Your task to perform on an android device: See recent photos Image 0: 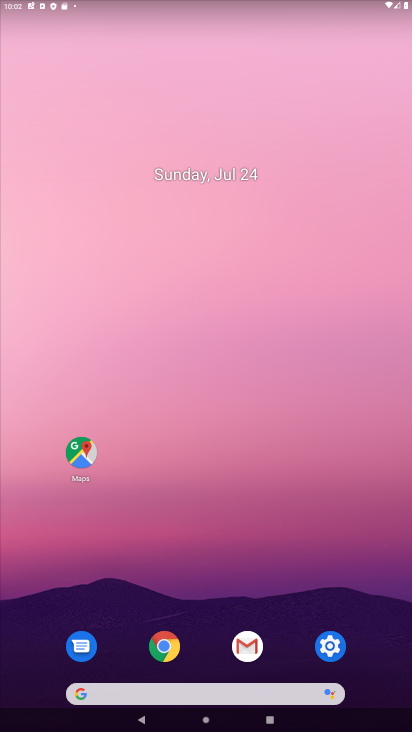
Step 0: drag from (202, 642) to (256, 271)
Your task to perform on an android device: See recent photos Image 1: 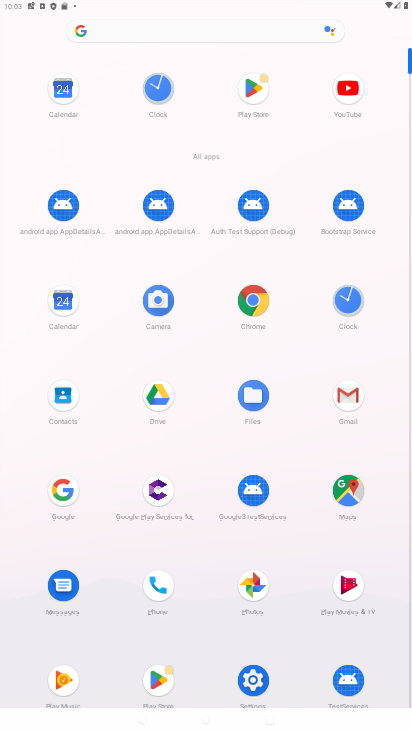
Step 1: click (251, 582)
Your task to perform on an android device: See recent photos Image 2: 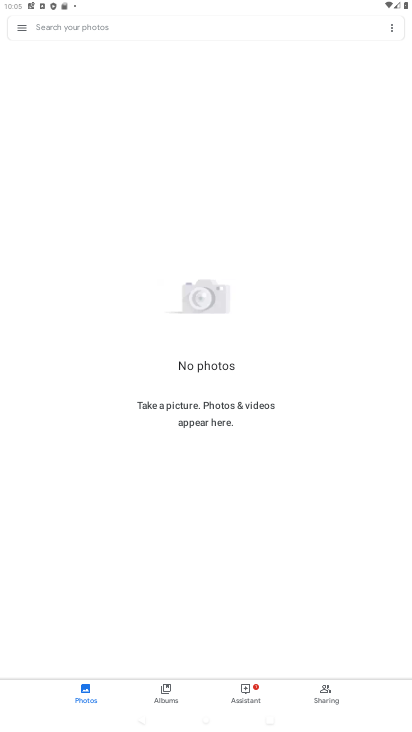
Step 2: task complete